Your task to perform on an android device: turn pop-ups off in chrome Image 0: 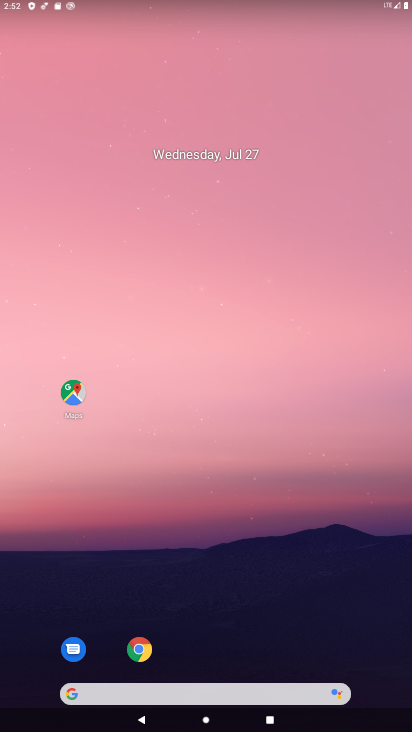
Step 0: drag from (256, 656) to (281, 154)
Your task to perform on an android device: turn pop-ups off in chrome Image 1: 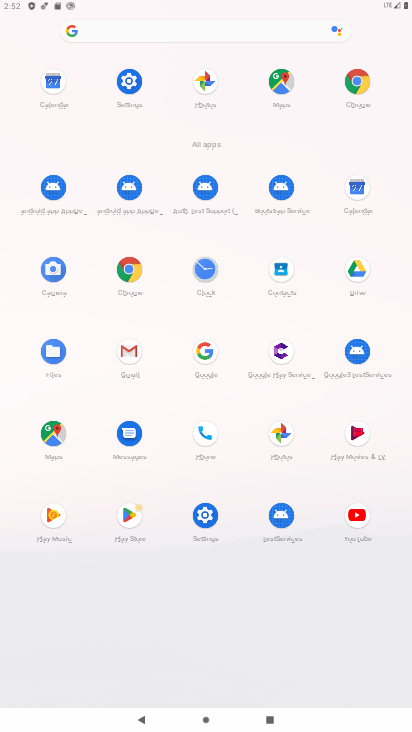
Step 1: click (129, 265)
Your task to perform on an android device: turn pop-ups off in chrome Image 2: 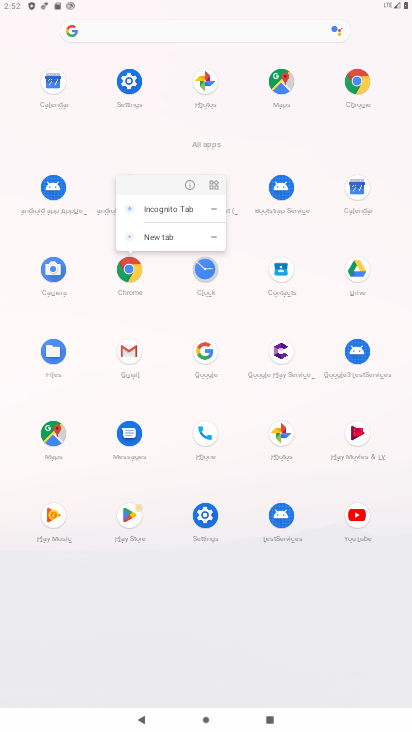
Step 2: click (130, 269)
Your task to perform on an android device: turn pop-ups off in chrome Image 3: 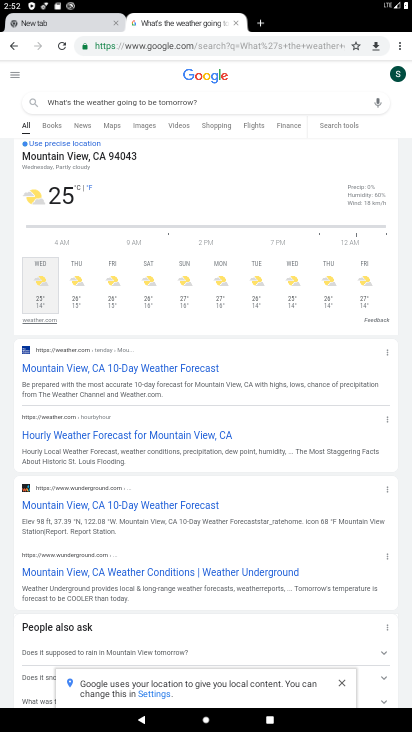
Step 3: drag from (402, 49) to (310, 280)
Your task to perform on an android device: turn pop-ups off in chrome Image 4: 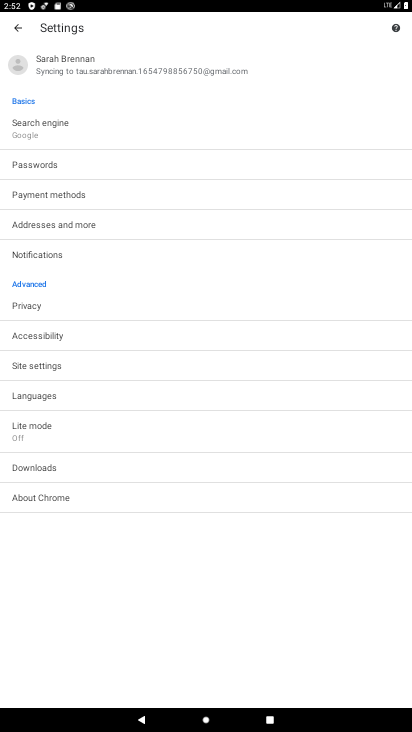
Step 4: click (22, 364)
Your task to perform on an android device: turn pop-ups off in chrome Image 5: 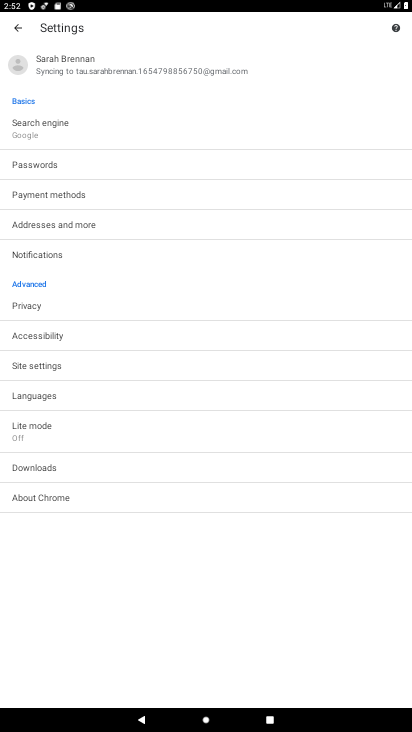
Step 5: click (33, 362)
Your task to perform on an android device: turn pop-ups off in chrome Image 6: 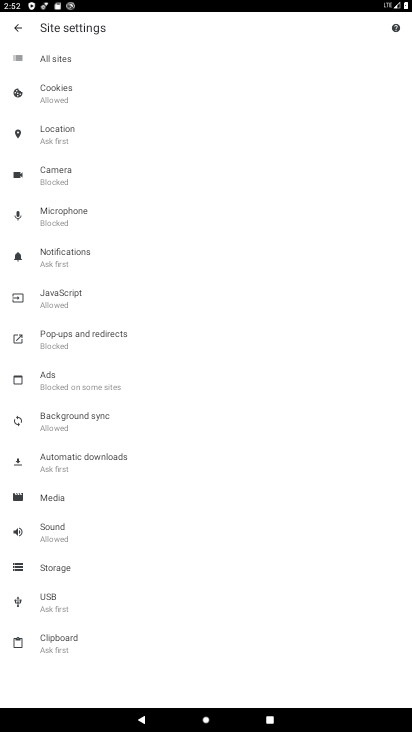
Step 6: click (93, 334)
Your task to perform on an android device: turn pop-ups off in chrome Image 7: 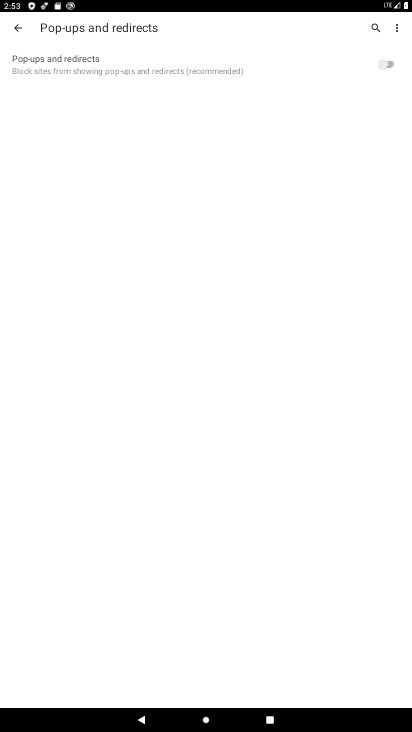
Step 7: task complete